Your task to perform on an android device: What's on my calendar today? Image 0: 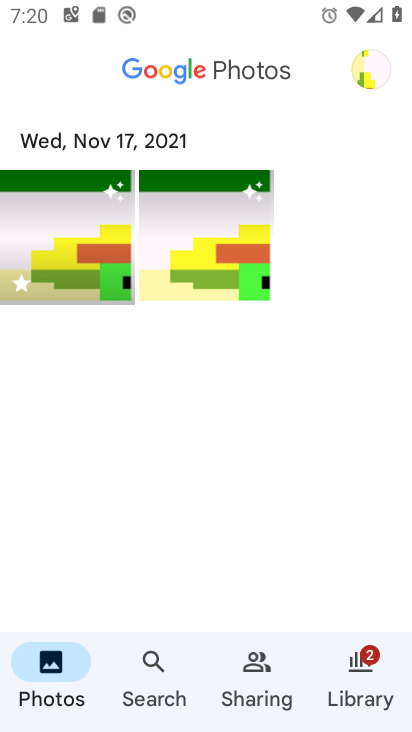
Step 0: press back button
Your task to perform on an android device: What's on my calendar today? Image 1: 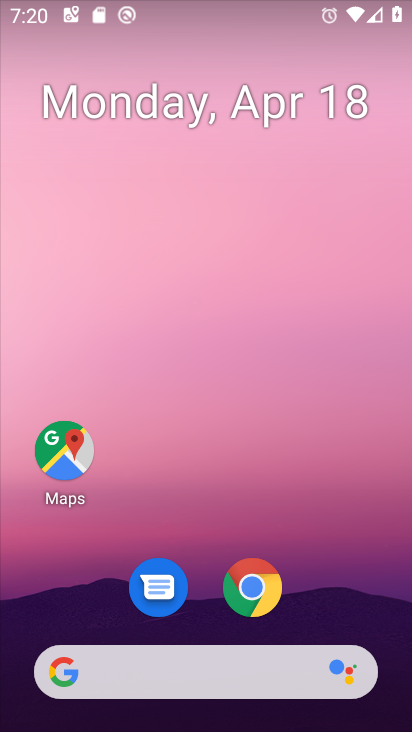
Step 1: press home button
Your task to perform on an android device: What's on my calendar today? Image 2: 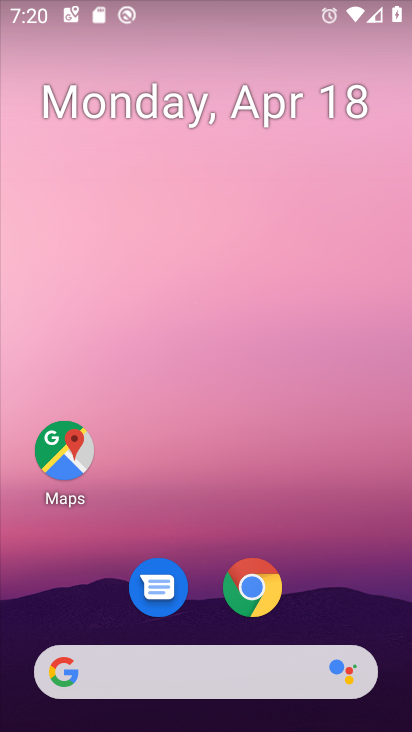
Step 2: click (254, 585)
Your task to perform on an android device: What's on my calendar today? Image 3: 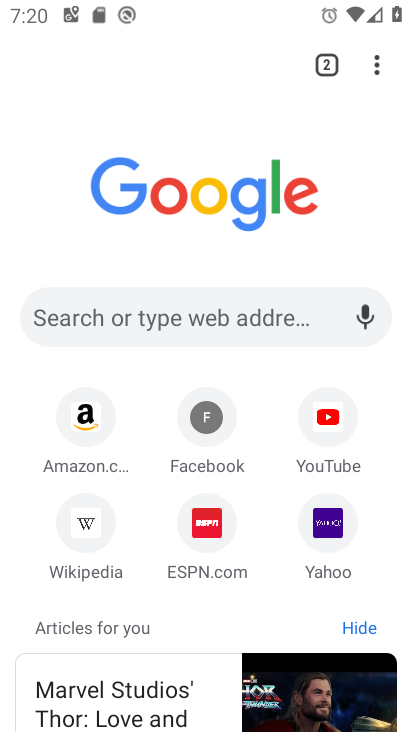
Step 3: press home button
Your task to perform on an android device: What's on my calendar today? Image 4: 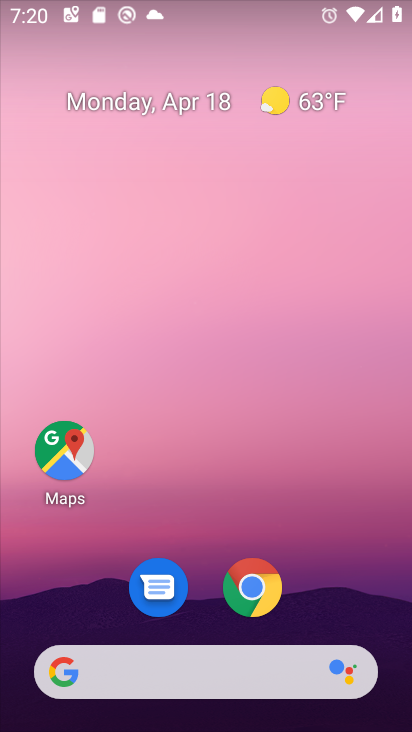
Step 4: drag from (309, 616) to (288, 52)
Your task to perform on an android device: What's on my calendar today? Image 5: 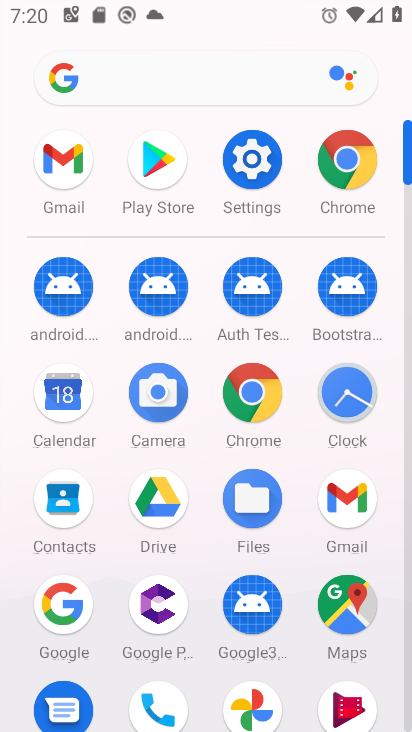
Step 5: click (70, 410)
Your task to perform on an android device: What's on my calendar today? Image 6: 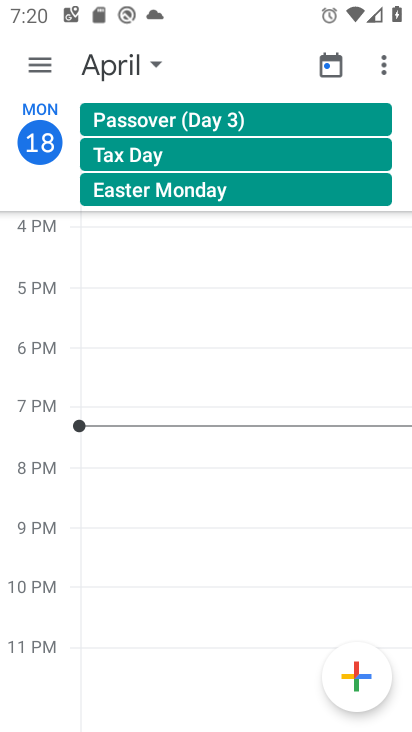
Step 6: click (49, 151)
Your task to perform on an android device: What's on my calendar today? Image 7: 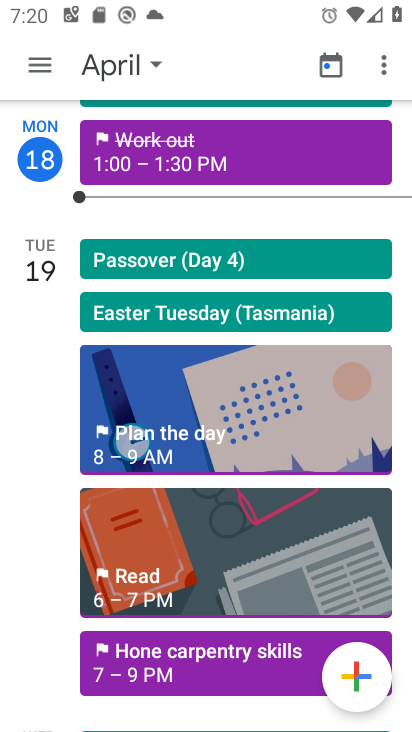
Step 7: click (27, 263)
Your task to perform on an android device: What's on my calendar today? Image 8: 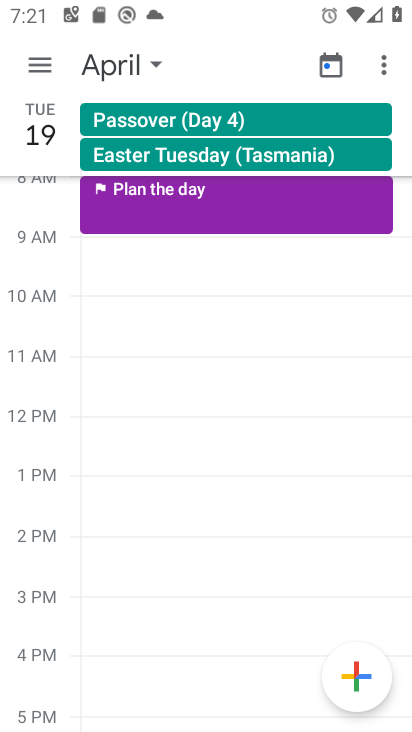
Step 8: task complete